Your task to perform on an android device: choose inbox layout in the gmail app Image 0: 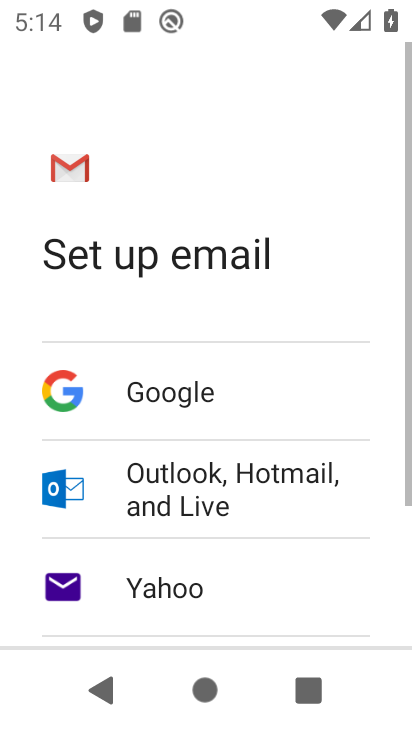
Step 0: press home button
Your task to perform on an android device: choose inbox layout in the gmail app Image 1: 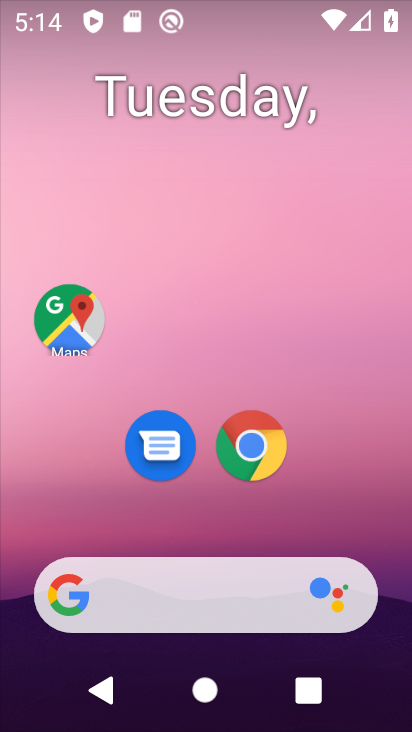
Step 1: drag from (335, 514) to (391, 151)
Your task to perform on an android device: choose inbox layout in the gmail app Image 2: 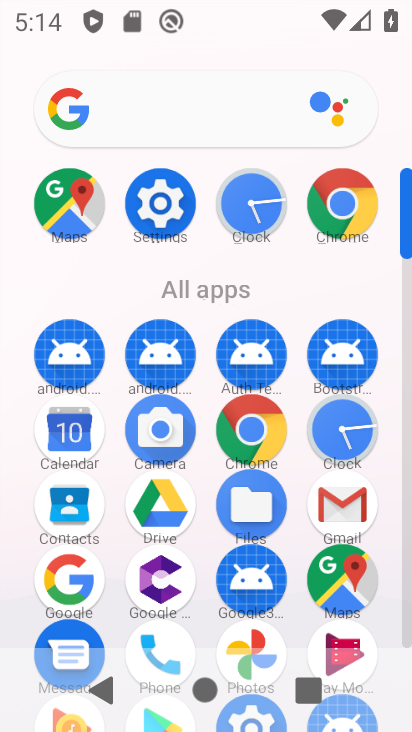
Step 2: click (345, 511)
Your task to perform on an android device: choose inbox layout in the gmail app Image 3: 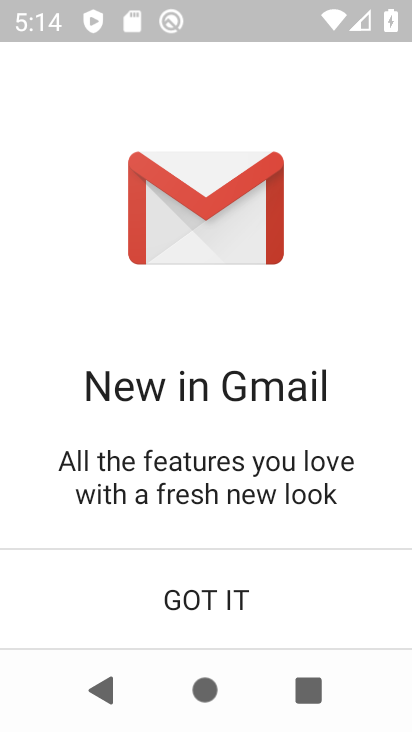
Step 3: click (225, 592)
Your task to perform on an android device: choose inbox layout in the gmail app Image 4: 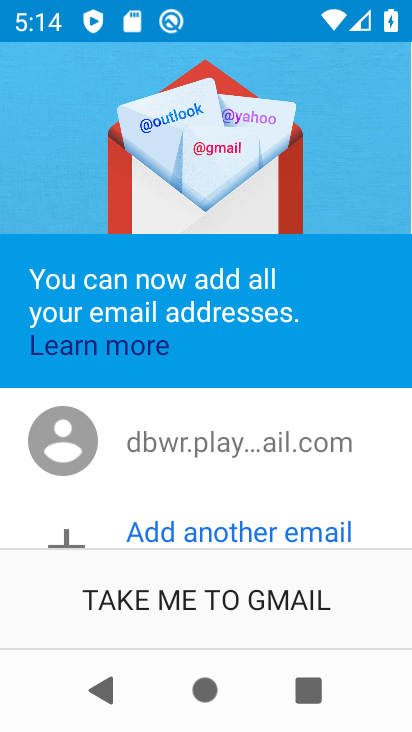
Step 4: click (256, 601)
Your task to perform on an android device: choose inbox layout in the gmail app Image 5: 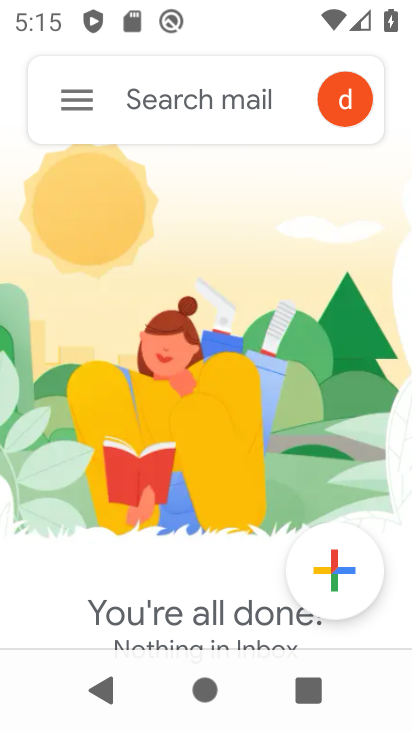
Step 5: click (80, 97)
Your task to perform on an android device: choose inbox layout in the gmail app Image 6: 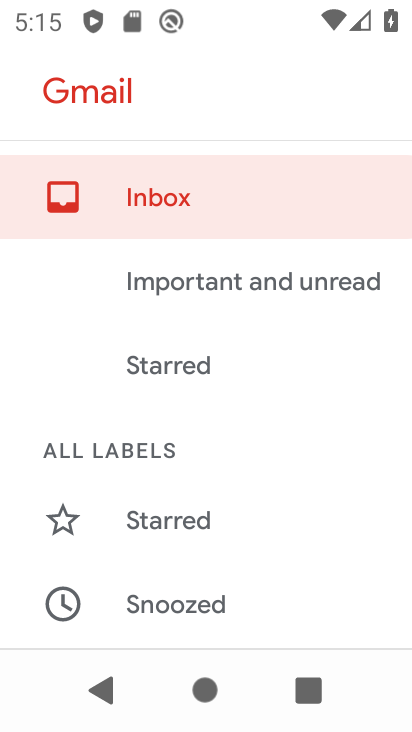
Step 6: drag from (264, 617) to (307, 235)
Your task to perform on an android device: choose inbox layout in the gmail app Image 7: 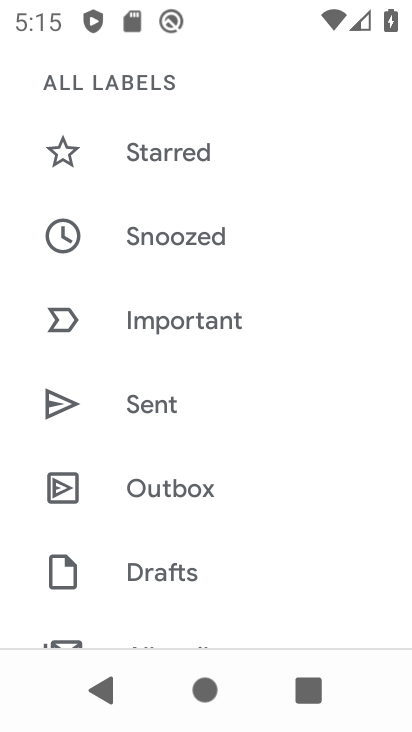
Step 7: drag from (277, 605) to (320, 232)
Your task to perform on an android device: choose inbox layout in the gmail app Image 8: 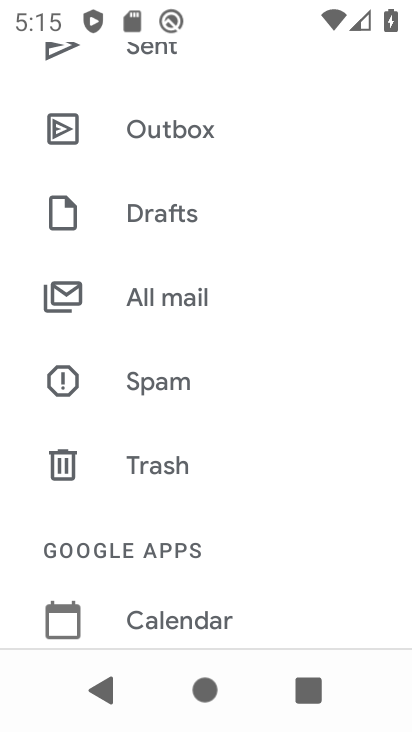
Step 8: drag from (246, 557) to (339, 200)
Your task to perform on an android device: choose inbox layout in the gmail app Image 9: 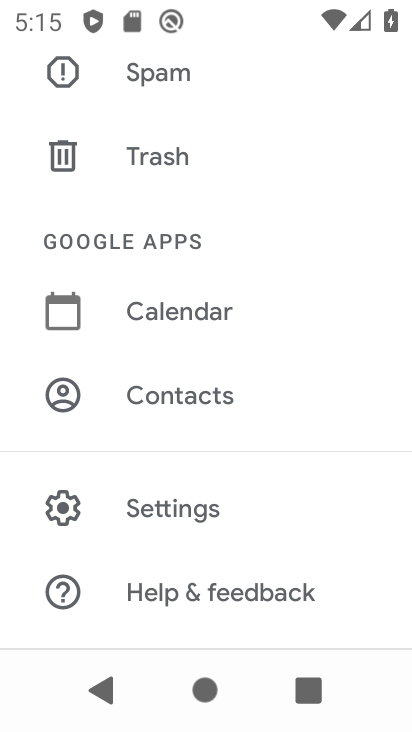
Step 9: drag from (268, 623) to (294, 234)
Your task to perform on an android device: choose inbox layout in the gmail app Image 10: 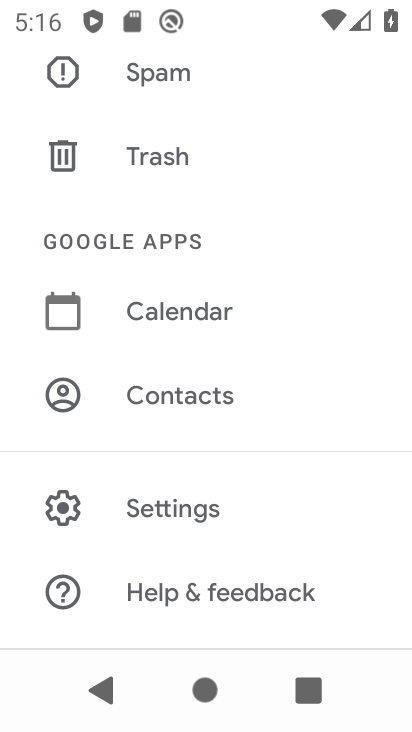
Step 10: click (174, 500)
Your task to perform on an android device: choose inbox layout in the gmail app Image 11: 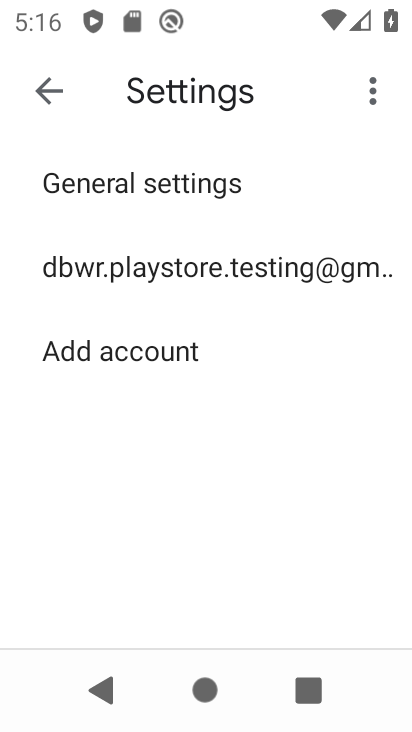
Step 11: click (156, 277)
Your task to perform on an android device: choose inbox layout in the gmail app Image 12: 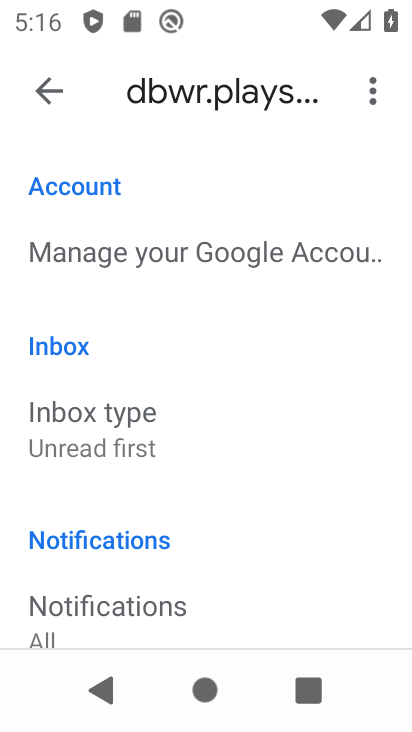
Step 12: click (117, 425)
Your task to perform on an android device: choose inbox layout in the gmail app Image 13: 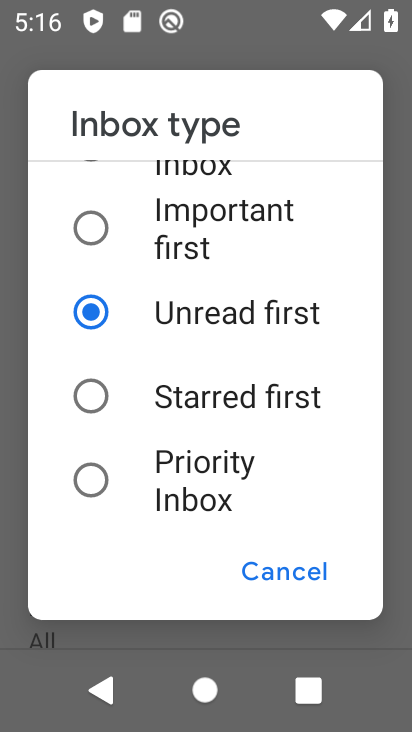
Step 13: drag from (226, 227) to (205, 426)
Your task to perform on an android device: choose inbox layout in the gmail app Image 14: 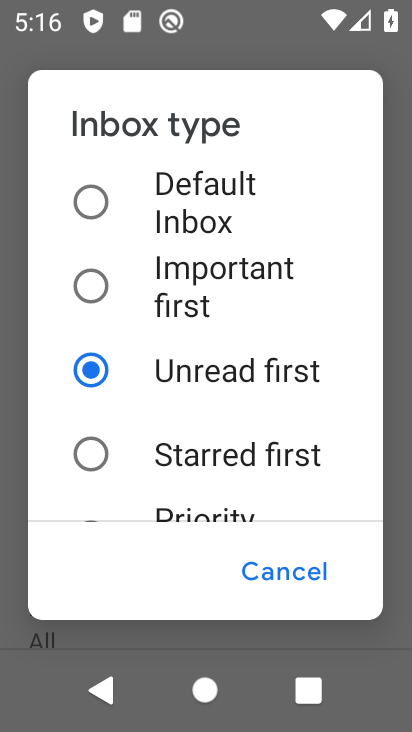
Step 14: click (194, 273)
Your task to perform on an android device: choose inbox layout in the gmail app Image 15: 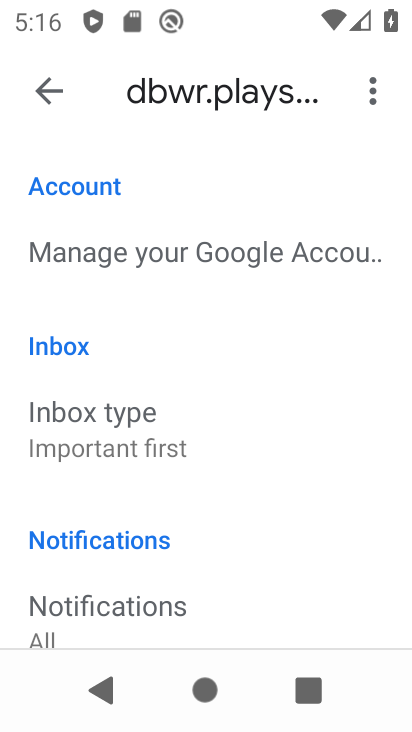
Step 15: task complete